Your task to perform on an android device: Open Amazon Image 0: 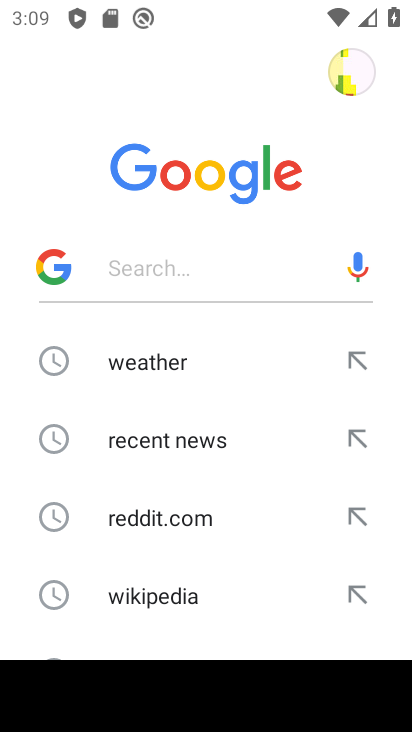
Step 0: press home button
Your task to perform on an android device: Open Amazon Image 1: 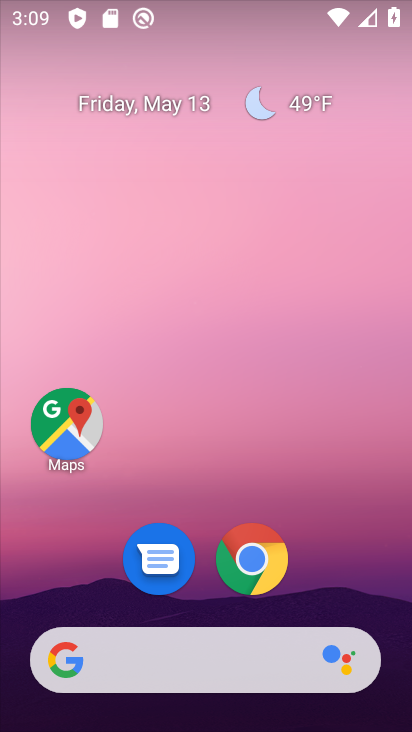
Step 1: click (253, 553)
Your task to perform on an android device: Open Amazon Image 2: 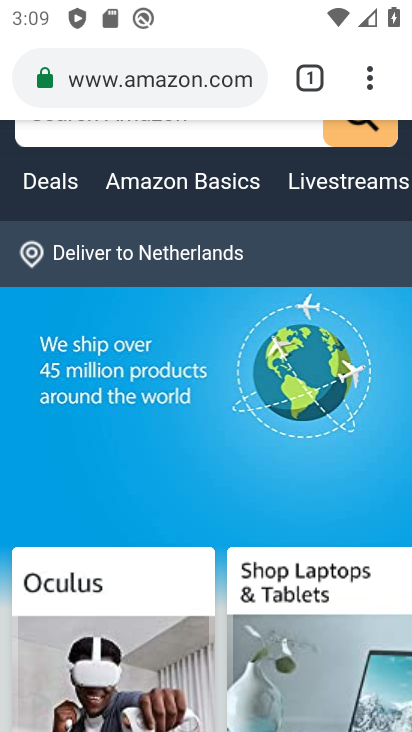
Step 2: task complete